Your task to perform on an android device: Open Android settings Image 0: 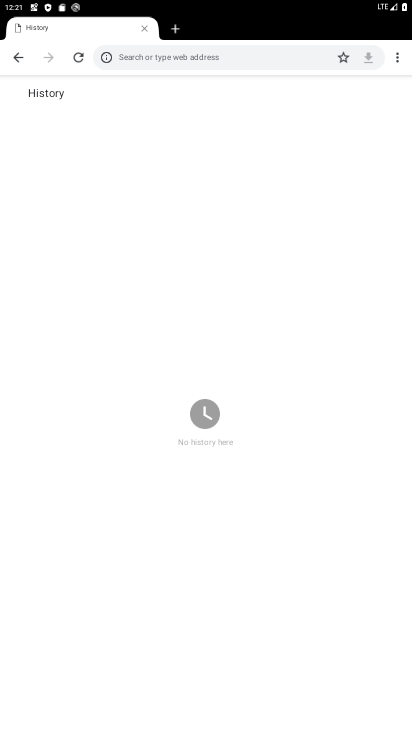
Step 0: drag from (196, 728) to (159, 199)
Your task to perform on an android device: Open Android settings Image 1: 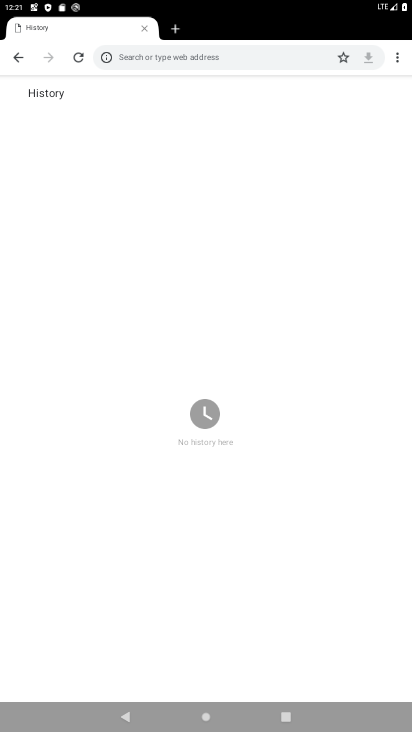
Step 1: click (204, 720)
Your task to perform on an android device: Open Android settings Image 2: 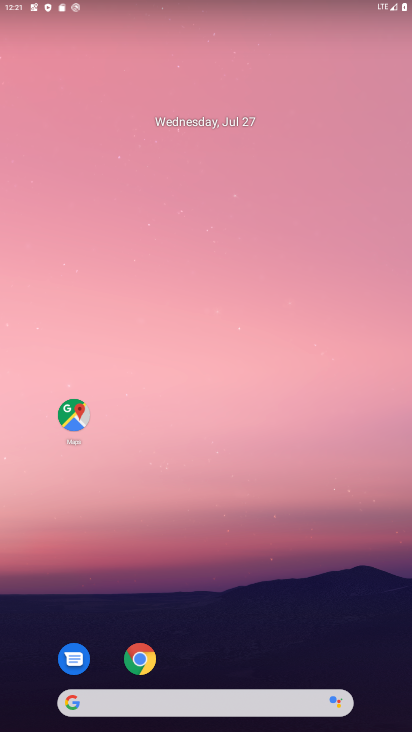
Step 2: drag from (186, 640) to (211, 56)
Your task to perform on an android device: Open Android settings Image 3: 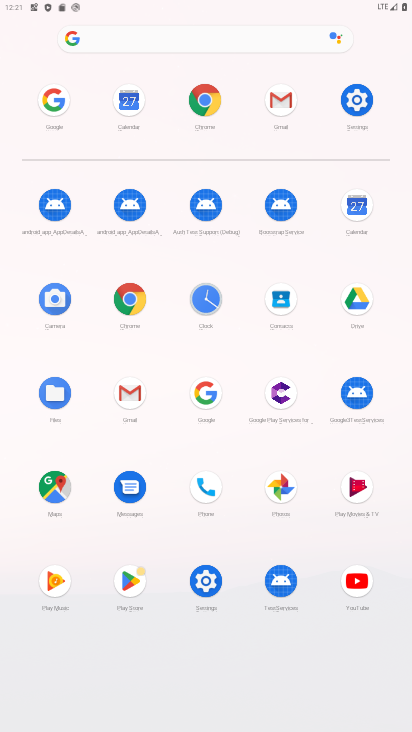
Step 3: click (207, 575)
Your task to perform on an android device: Open Android settings Image 4: 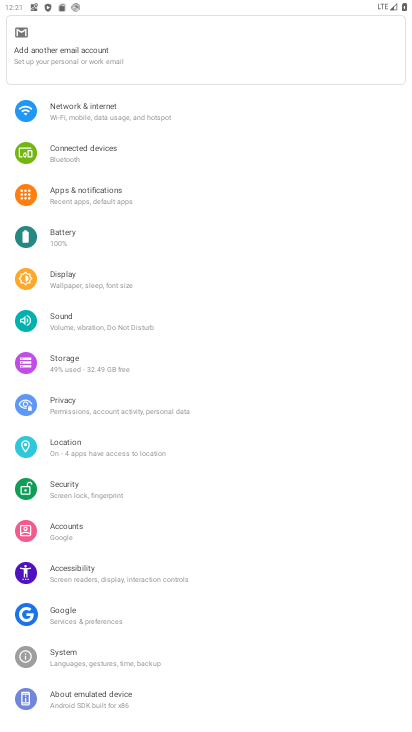
Step 4: drag from (264, 625) to (301, 139)
Your task to perform on an android device: Open Android settings Image 5: 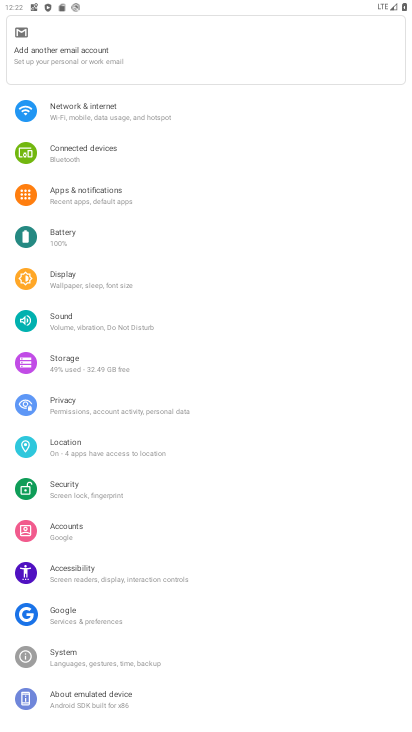
Step 5: click (80, 656)
Your task to perform on an android device: Open Android settings Image 6: 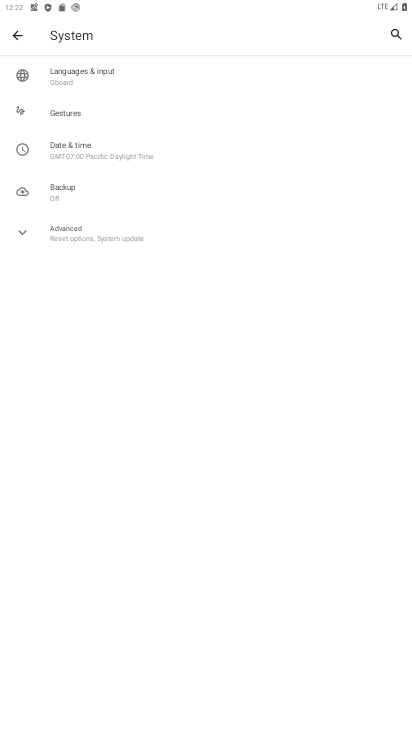
Step 6: task complete